Your task to perform on an android device: Open ESPN.com Image 0: 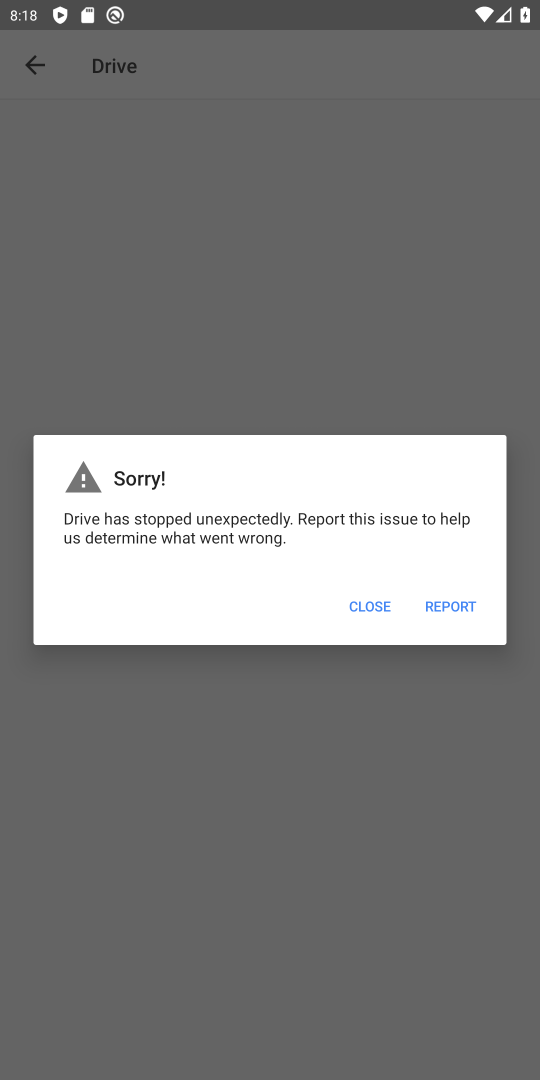
Step 0: drag from (252, 533) to (284, 401)
Your task to perform on an android device: Open ESPN.com Image 1: 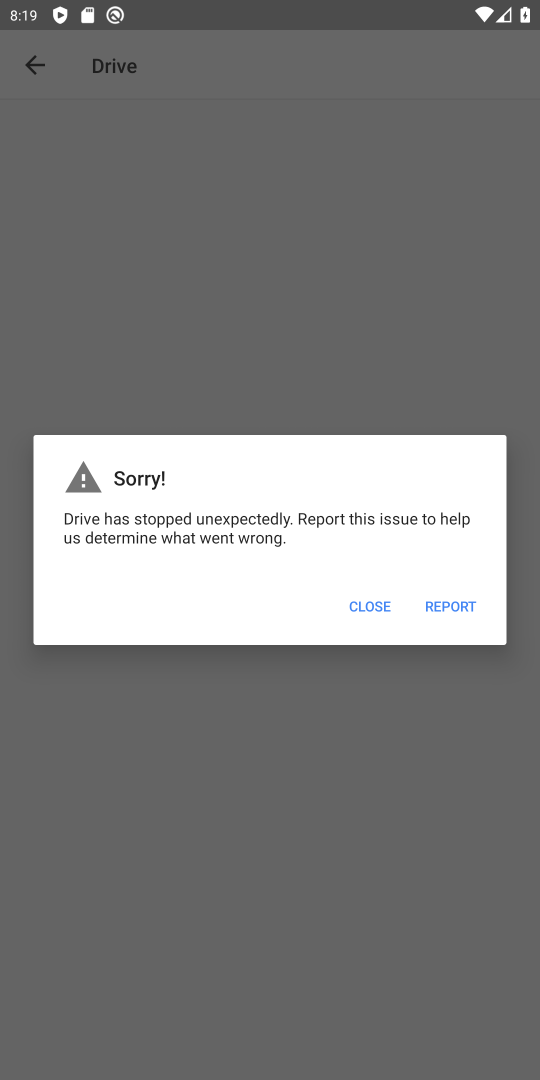
Step 1: drag from (246, 544) to (259, 362)
Your task to perform on an android device: Open ESPN.com Image 2: 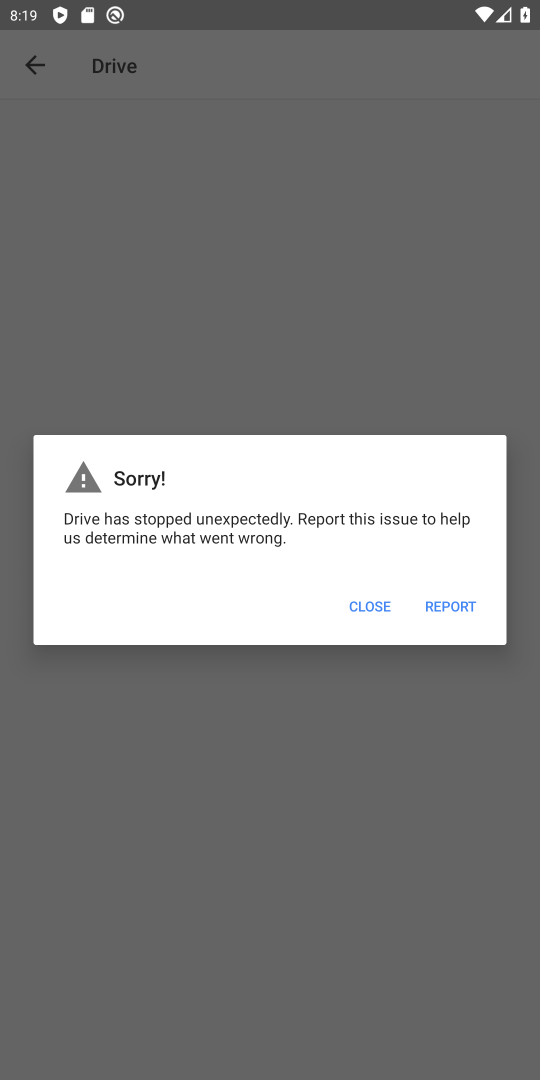
Step 2: press home button
Your task to perform on an android device: Open ESPN.com Image 3: 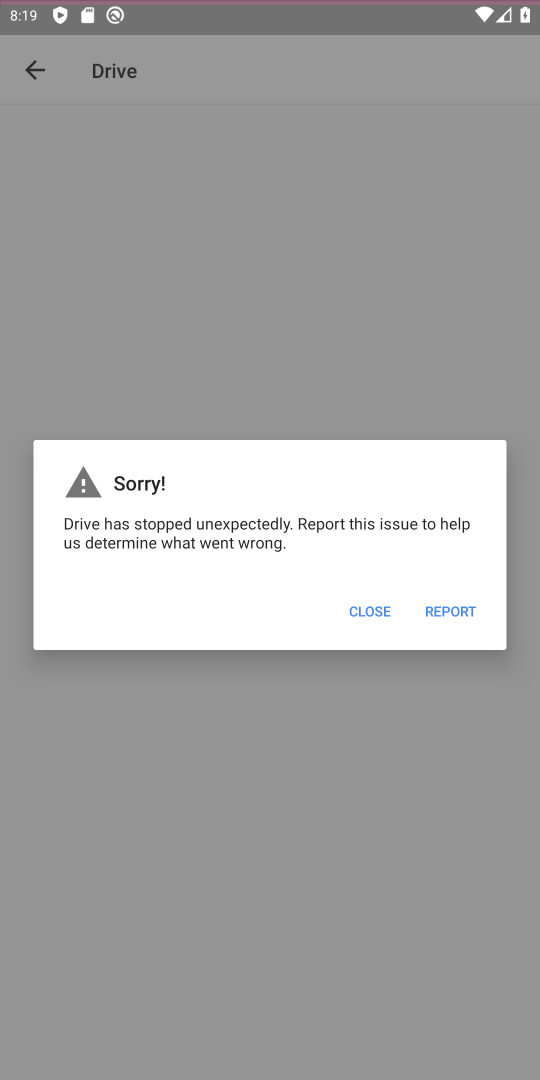
Step 3: drag from (248, 743) to (269, 122)
Your task to perform on an android device: Open ESPN.com Image 4: 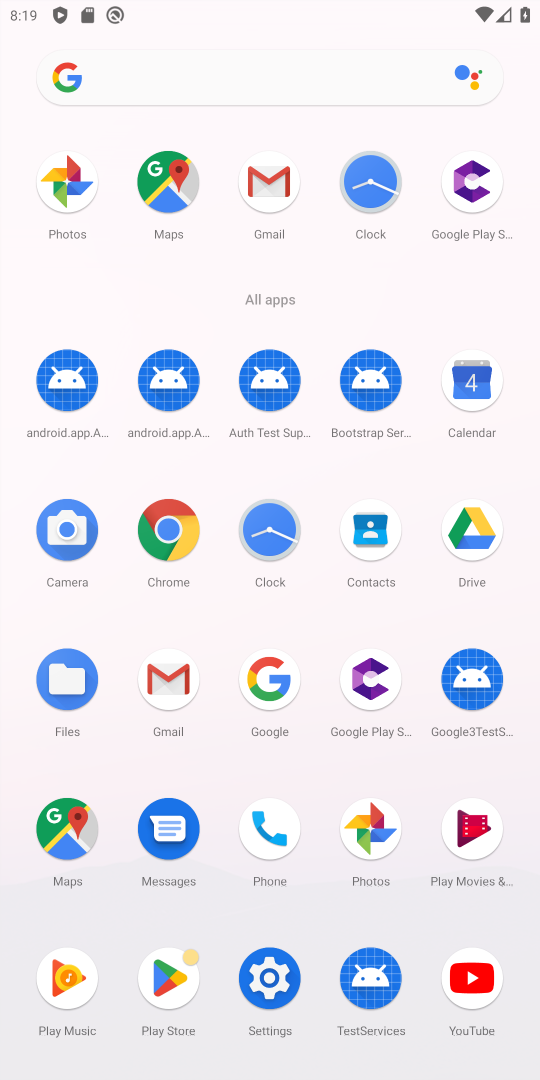
Step 4: click (173, 72)
Your task to perform on an android device: Open ESPN.com Image 5: 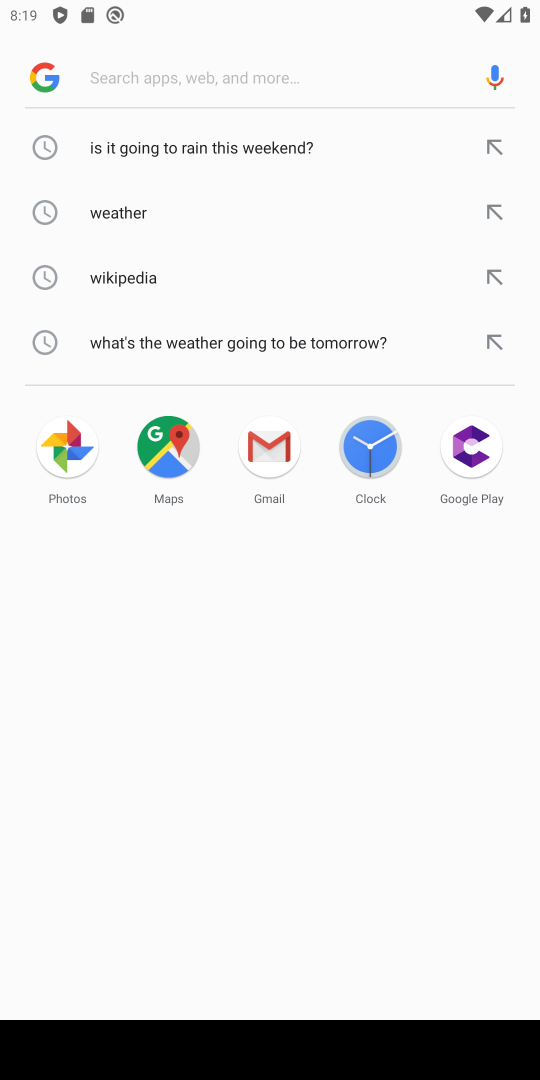
Step 5: type "ESPN.com"
Your task to perform on an android device: Open ESPN.com Image 6: 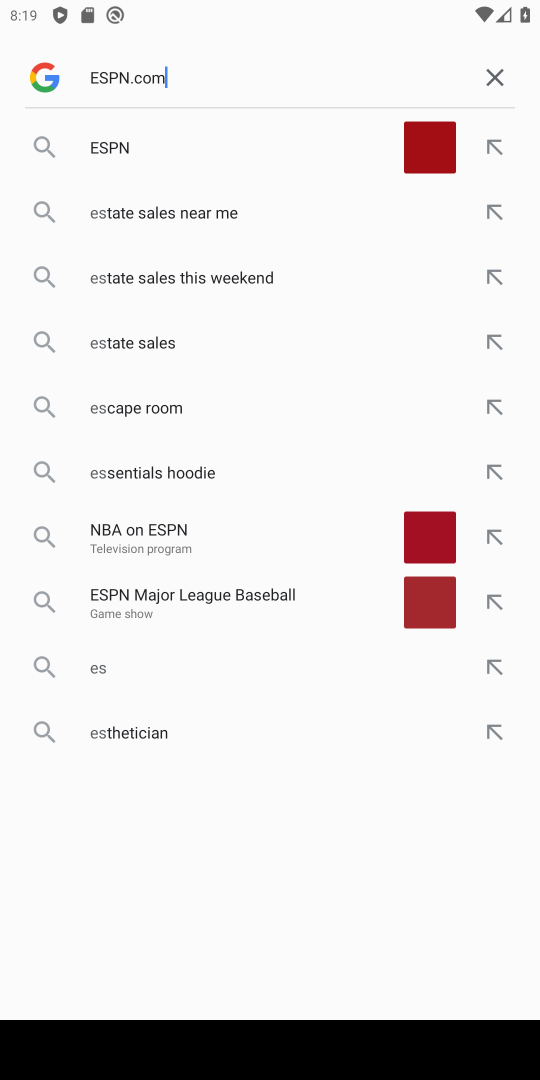
Step 6: type ""
Your task to perform on an android device: Open ESPN.com Image 7: 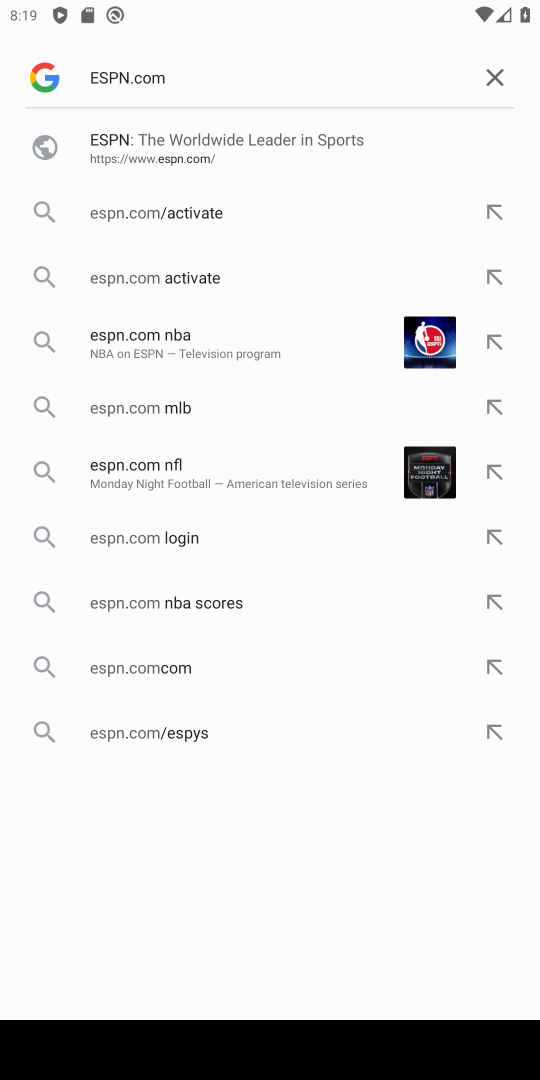
Step 7: click (106, 144)
Your task to perform on an android device: Open ESPN.com Image 8: 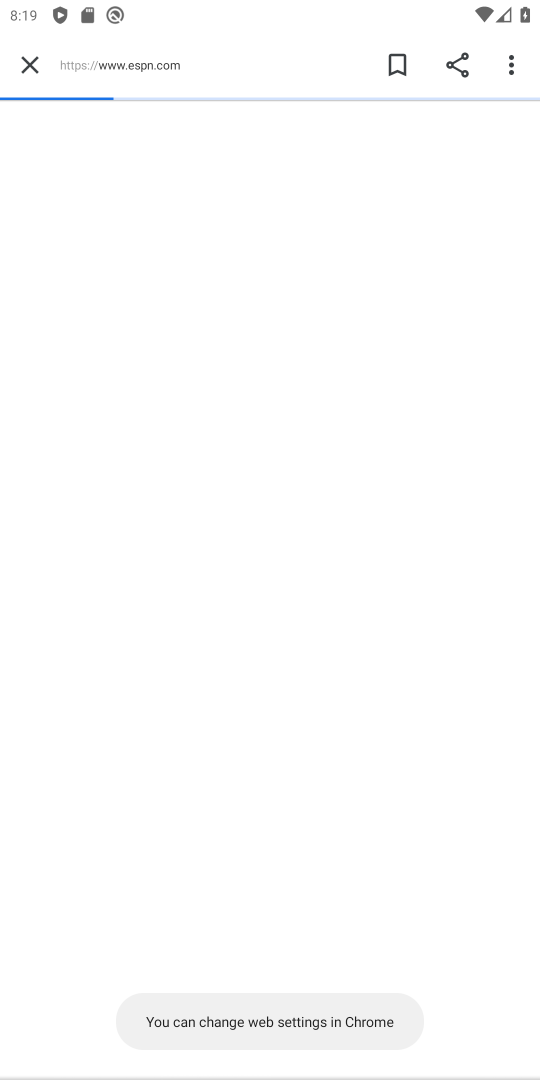
Step 8: task complete